Your task to perform on an android device: find photos in the google photos app Image 0: 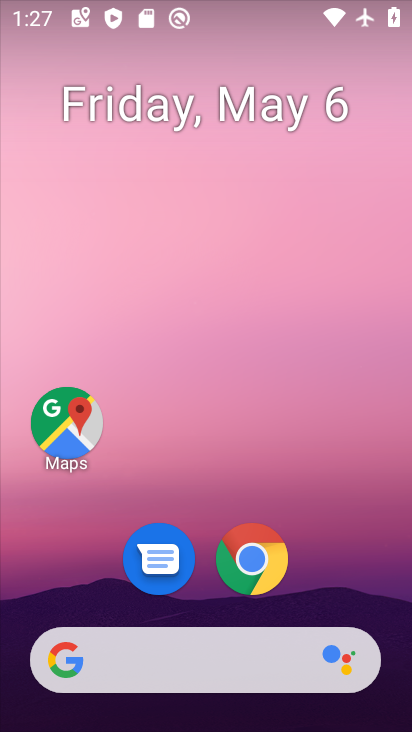
Step 0: drag from (228, 684) to (298, 197)
Your task to perform on an android device: find photos in the google photos app Image 1: 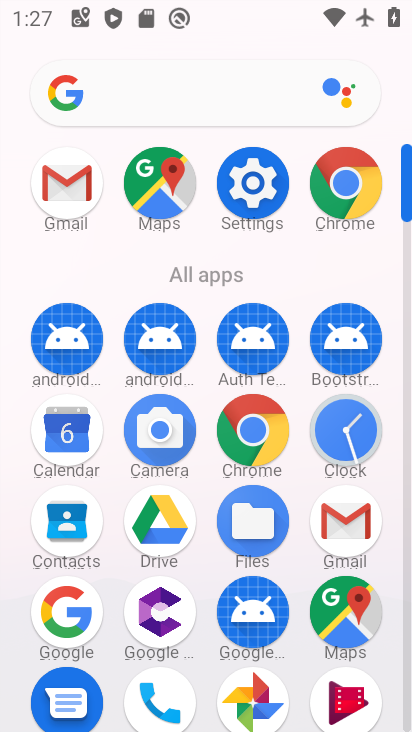
Step 1: click (258, 689)
Your task to perform on an android device: find photos in the google photos app Image 2: 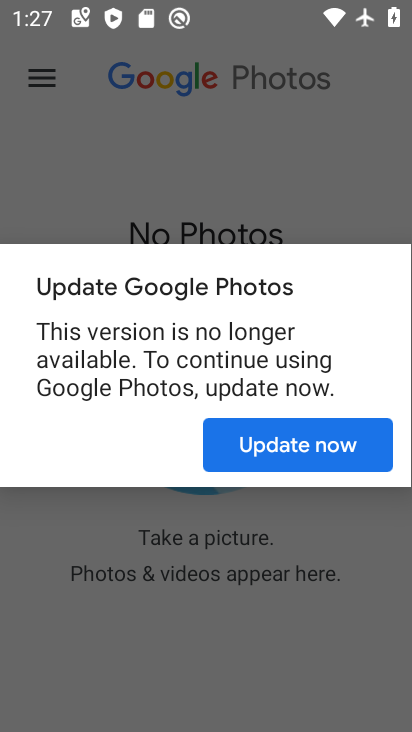
Step 2: click (306, 451)
Your task to perform on an android device: find photos in the google photos app Image 3: 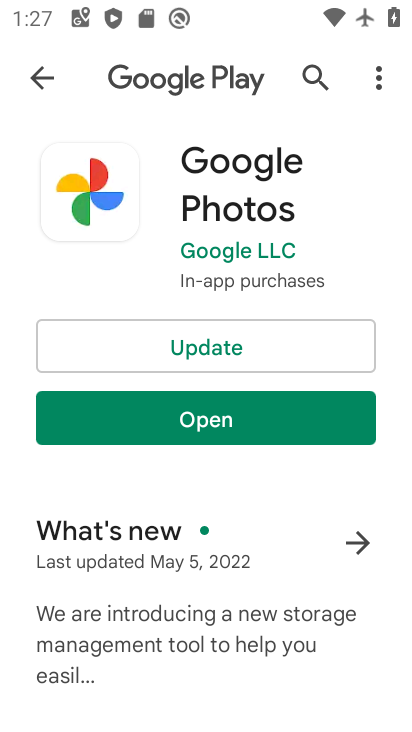
Step 3: click (224, 425)
Your task to perform on an android device: find photos in the google photos app Image 4: 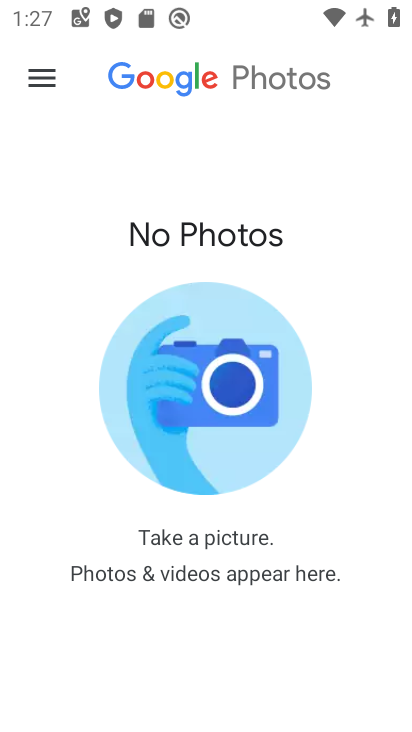
Step 4: click (45, 78)
Your task to perform on an android device: find photos in the google photos app Image 5: 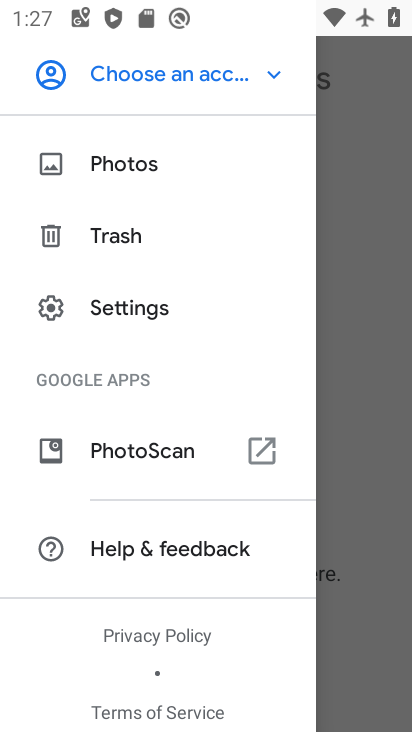
Step 5: click (127, 165)
Your task to perform on an android device: find photos in the google photos app Image 6: 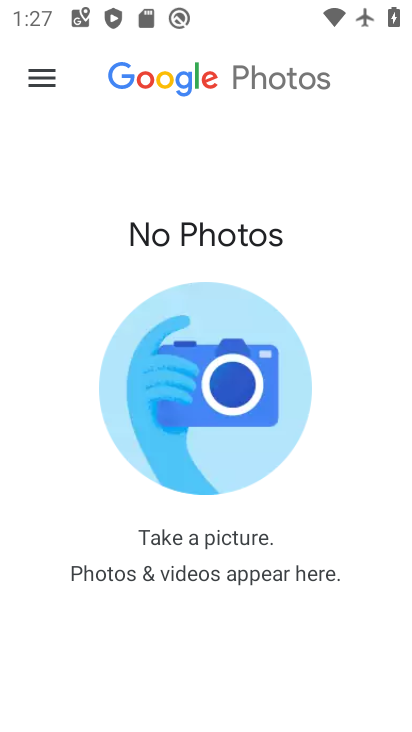
Step 6: task complete